Your task to perform on an android device: Open Google Chrome and click the shortcut for Amazon.com Image 0: 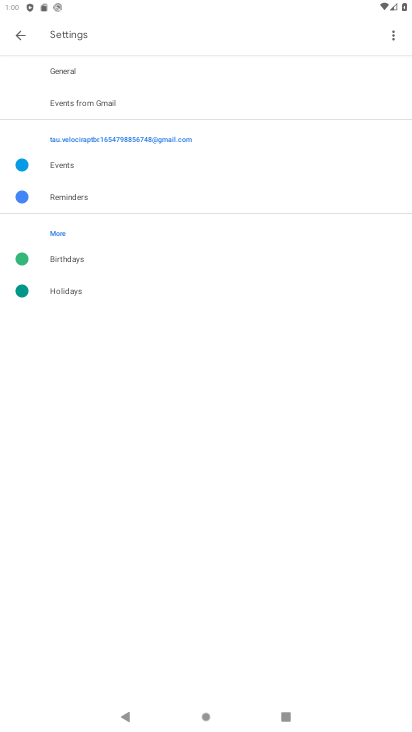
Step 0: press home button
Your task to perform on an android device: Open Google Chrome and click the shortcut for Amazon.com Image 1: 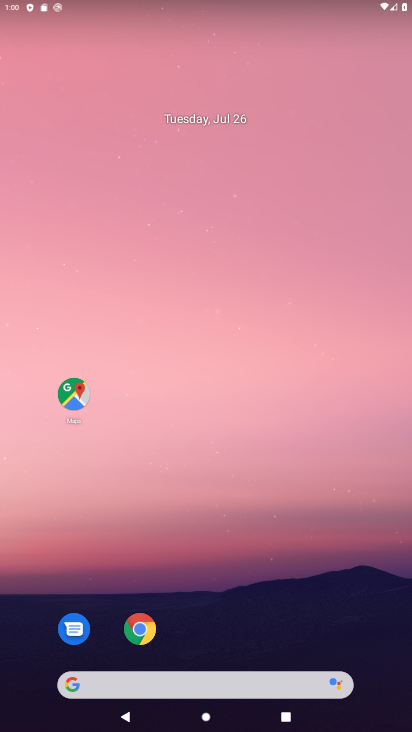
Step 1: click (140, 620)
Your task to perform on an android device: Open Google Chrome and click the shortcut for Amazon.com Image 2: 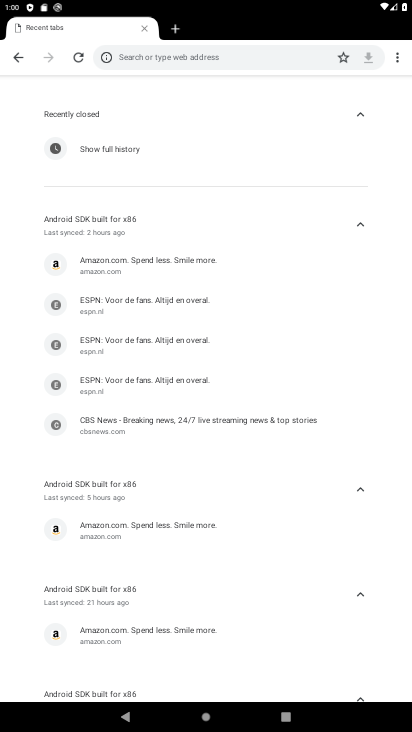
Step 2: click (225, 60)
Your task to perform on an android device: Open Google Chrome and click the shortcut for Amazon.com Image 3: 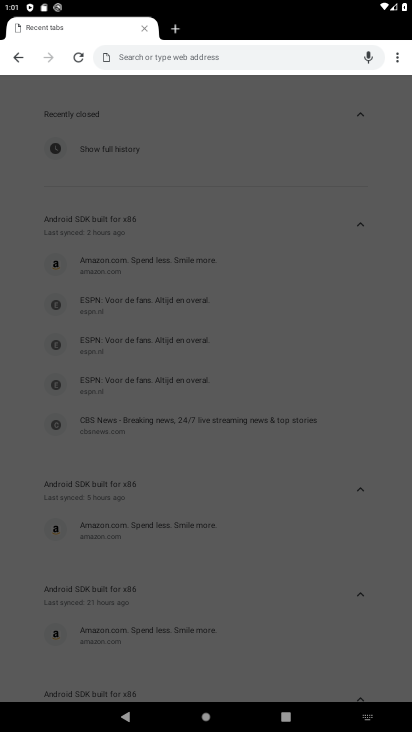
Step 3: press back button
Your task to perform on an android device: Open Google Chrome and click the shortcut for Amazon.com Image 4: 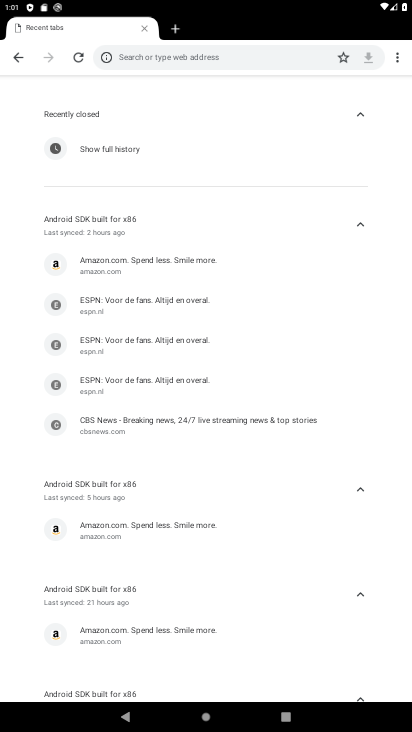
Step 4: click (398, 51)
Your task to perform on an android device: Open Google Chrome and click the shortcut for Amazon.com Image 5: 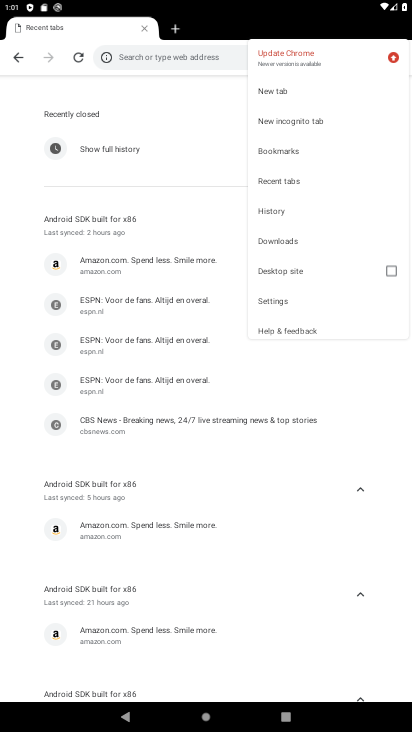
Step 5: click (289, 94)
Your task to perform on an android device: Open Google Chrome and click the shortcut for Amazon.com Image 6: 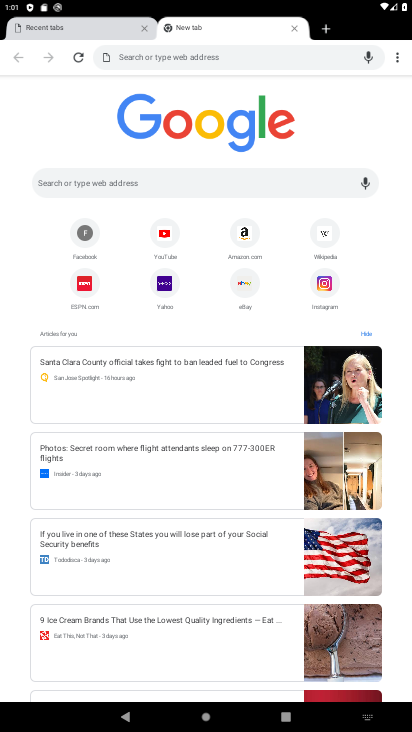
Step 6: click (242, 240)
Your task to perform on an android device: Open Google Chrome and click the shortcut for Amazon.com Image 7: 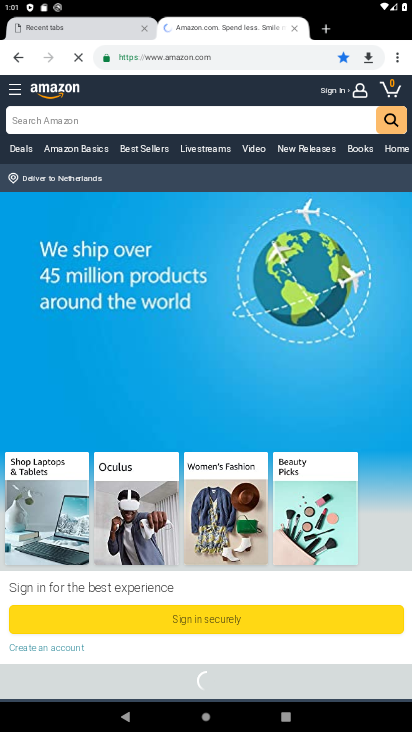
Step 7: task complete